Your task to perform on an android device: Show the shopping cart on target. Search for sony triple a on target, select the first entry, and add it to the cart. Image 0: 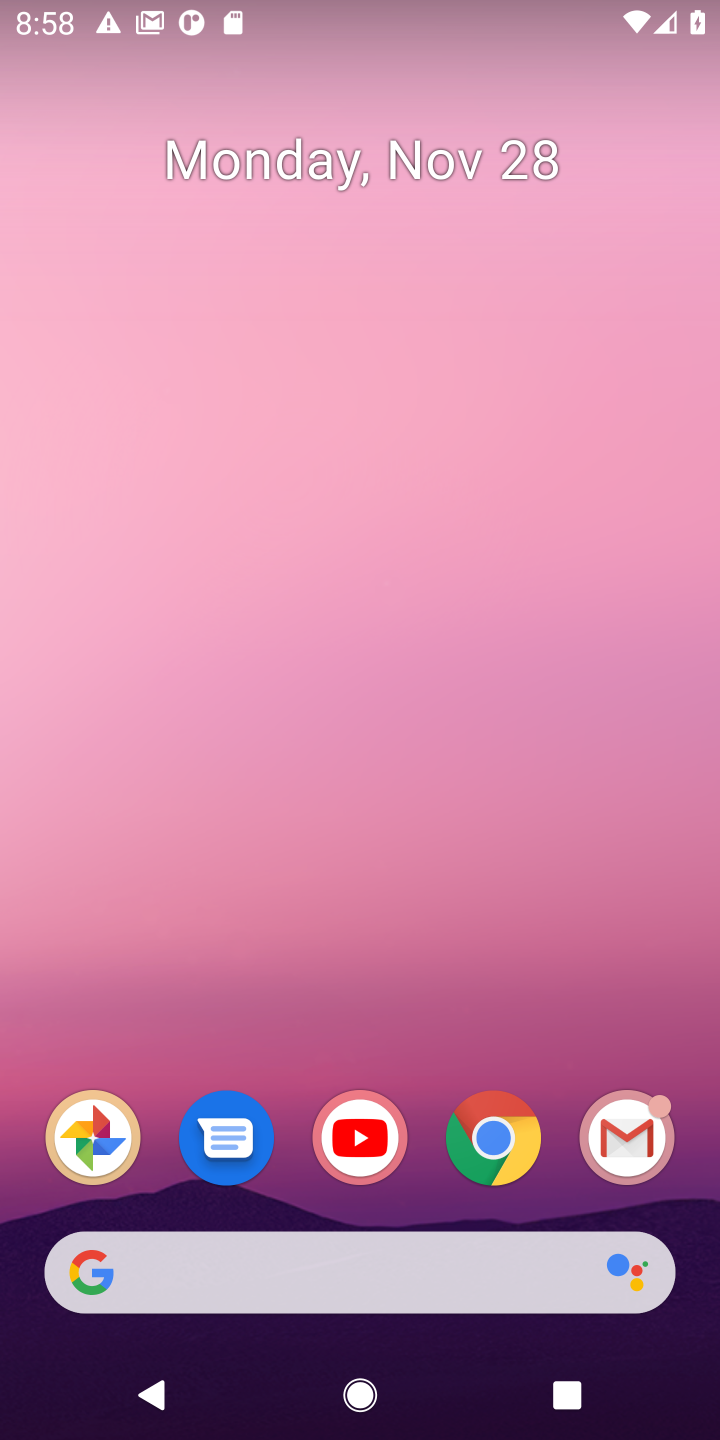
Step 0: click (506, 1143)
Your task to perform on an android device: Show the shopping cart on target. Search for sony triple a on target, select the first entry, and add it to the cart. Image 1: 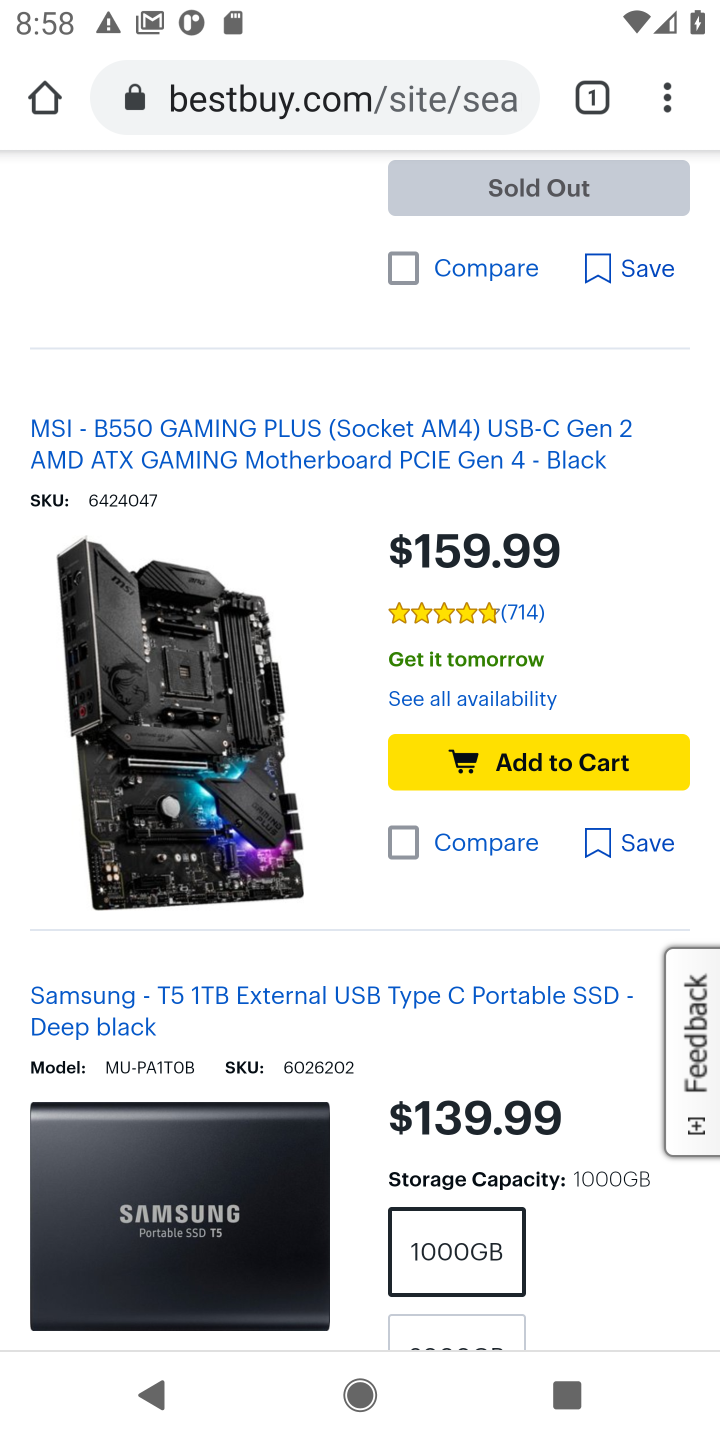
Step 1: click (230, 100)
Your task to perform on an android device: Show the shopping cart on target. Search for sony triple a on target, select the first entry, and add it to the cart. Image 2: 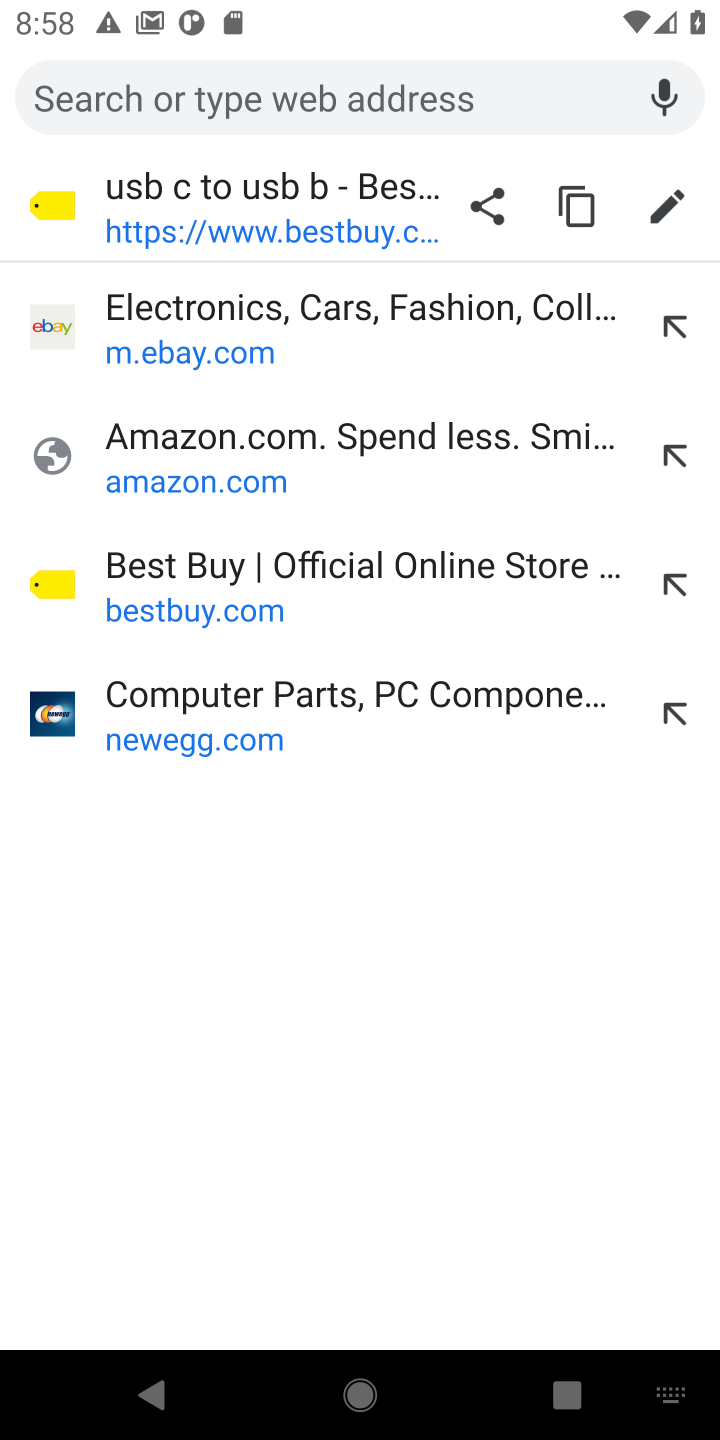
Step 2: type "target.com"
Your task to perform on an android device: Show the shopping cart on target. Search for sony triple a on target, select the first entry, and add it to the cart. Image 3: 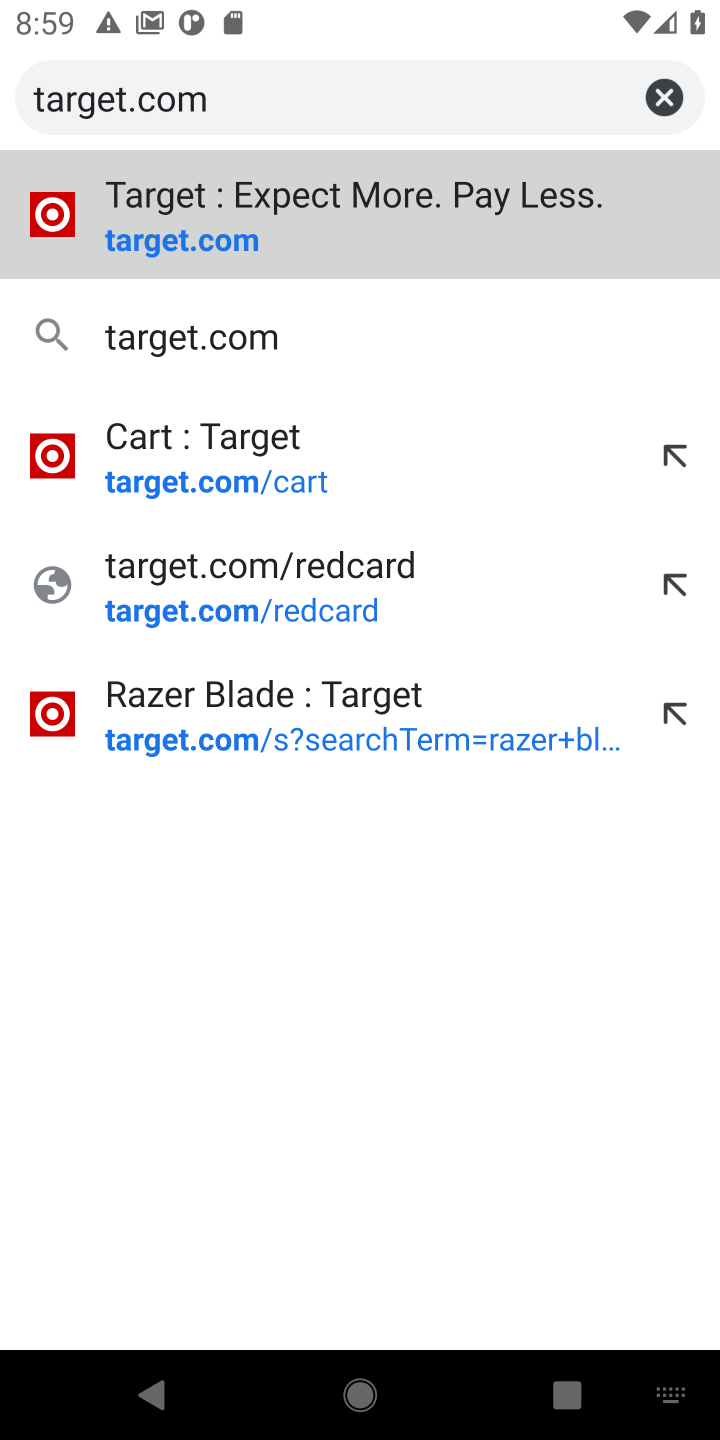
Step 3: click (165, 241)
Your task to perform on an android device: Show the shopping cart on target. Search for sony triple a on target, select the first entry, and add it to the cart. Image 4: 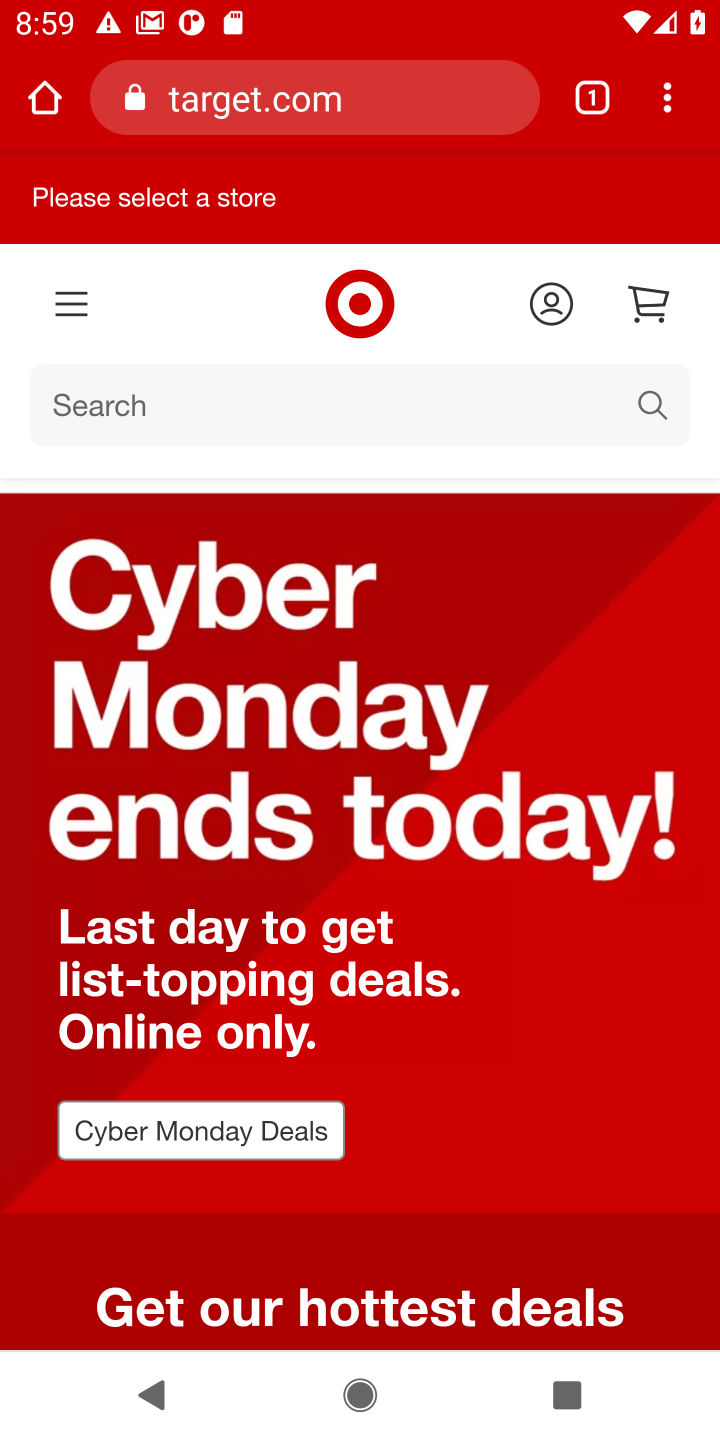
Step 4: click (646, 312)
Your task to perform on an android device: Show the shopping cart on target. Search for sony triple a on target, select the first entry, and add it to the cart. Image 5: 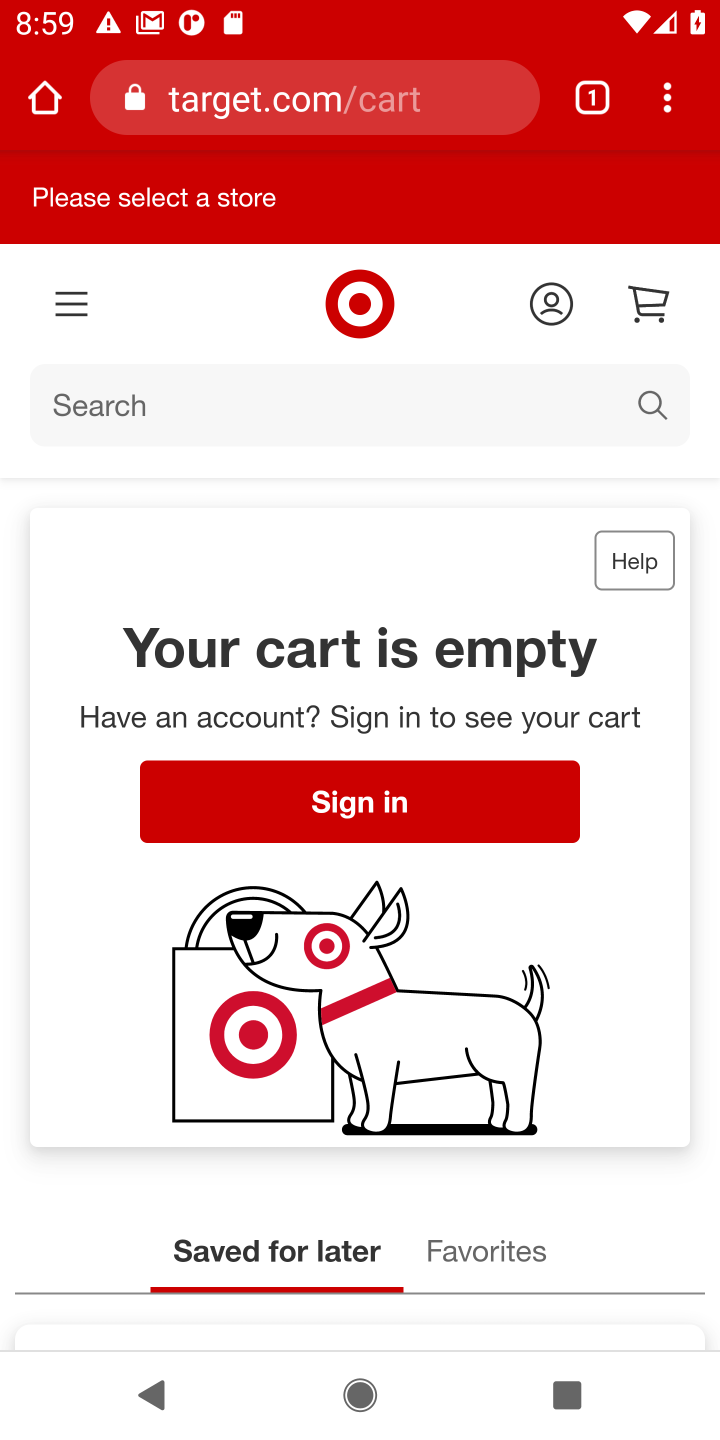
Step 5: click (646, 410)
Your task to perform on an android device: Show the shopping cart on target. Search for sony triple a on target, select the first entry, and add it to the cart. Image 6: 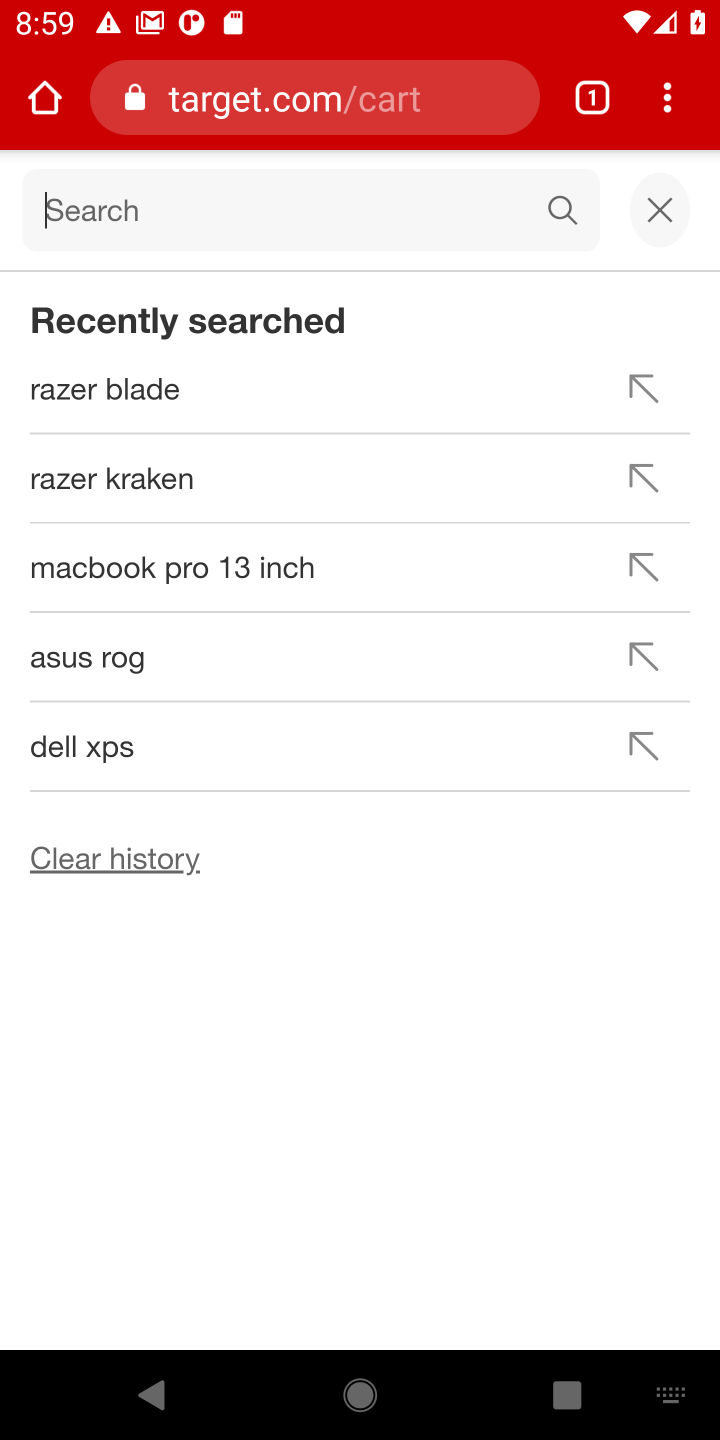
Step 6: type "sony triple a "
Your task to perform on an android device: Show the shopping cart on target. Search for sony triple a on target, select the first entry, and add it to the cart. Image 7: 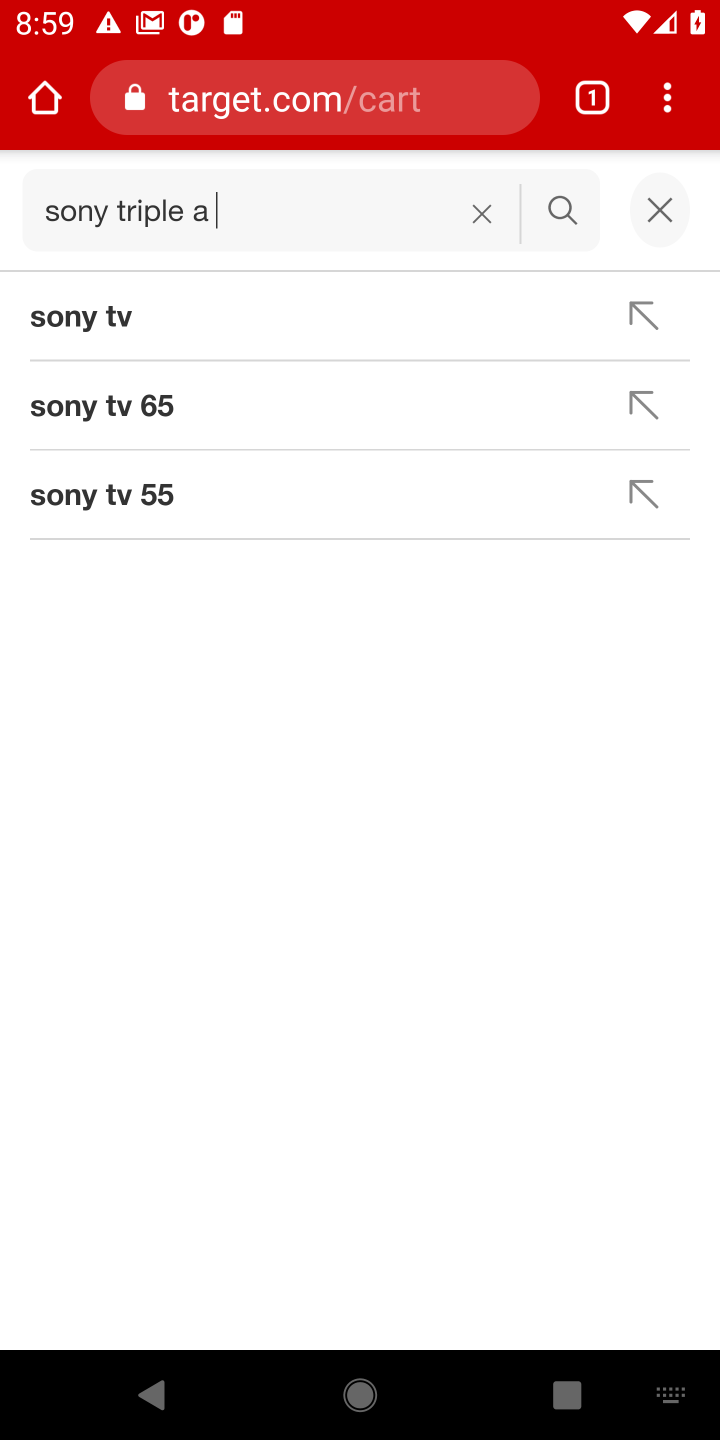
Step 7: click (555, 207)
Your task to perform on an android device: Show the shopping cart on target. Search for sony triple a on target, select the first entry, and add it to the cart. Image 8: 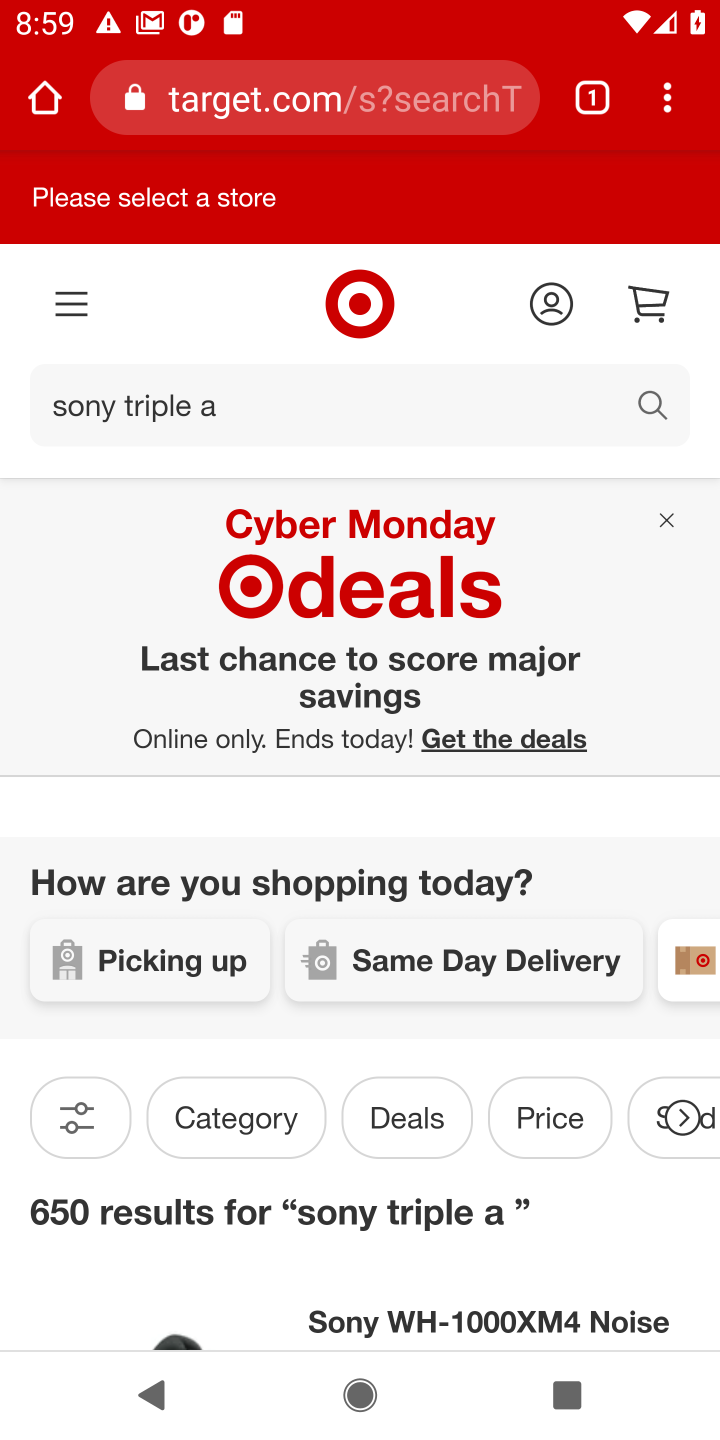
Step 8: task complete